Your task to perform on an android device: Open my contact list Image 0: 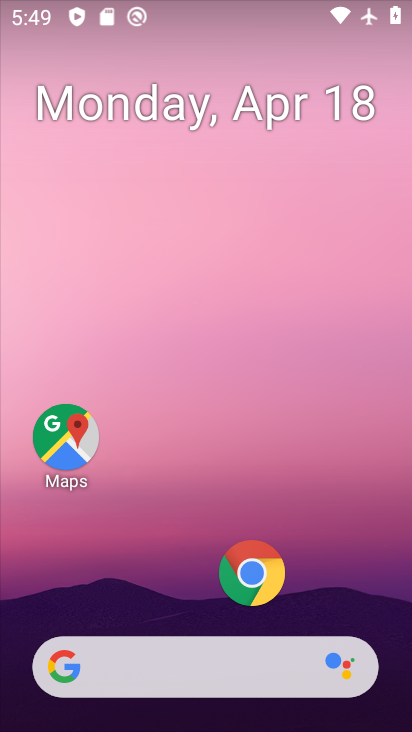
Step 0: drag from (168, 618) to (284, 58)
Your task to perform on an android device: Open my contact list Image 1: 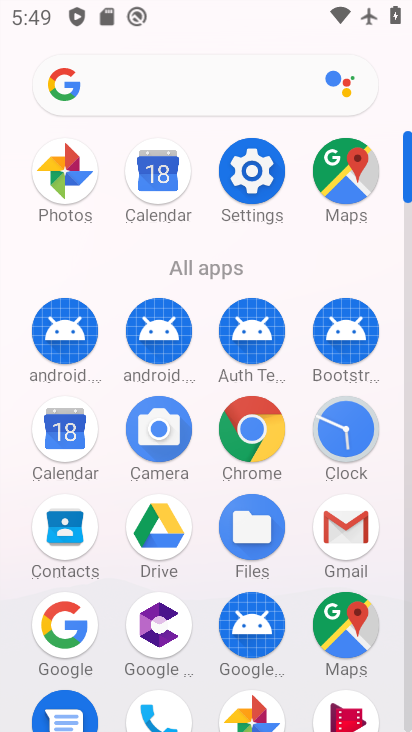
Step 1: click (62, 550)
Your task to perform on an android device: Open my contact list Image 2: 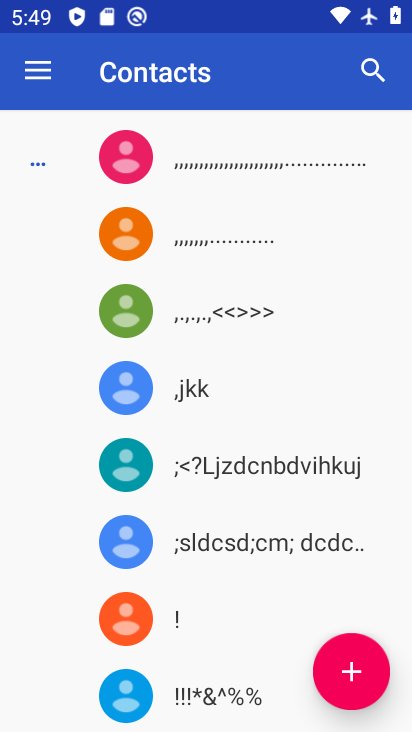
Step 2: task complete